Your task to perform on an android device: read, delete, or share a saved page in the chrome app Image 0: 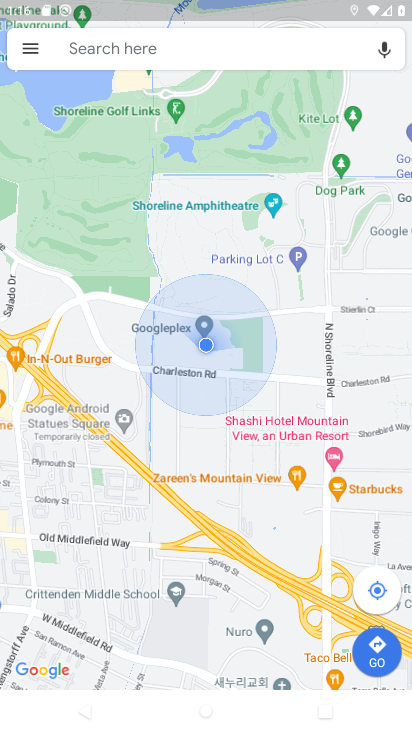
Step 0: press home button
Your task to perform on an android device: read, delete, or share a saved page in the chrome app Image 1: 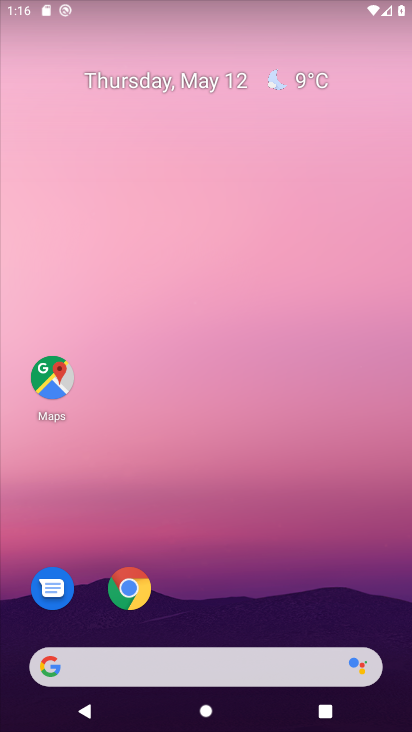
Step 1: drag from (313, 552) to (289, 67)
Your task to perform on an android device: read, delete, or share a saved page in the chrome app Image 2: 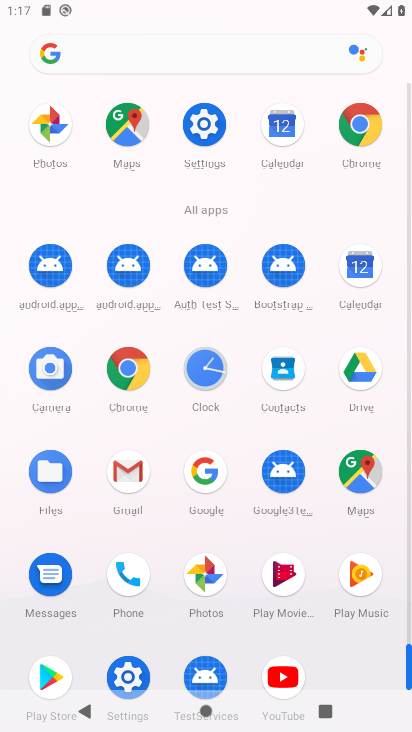
Step 2: click (347, 123)
Your task to perform on an android device: read, delete, or share a saved page in the chrome app Image 3: 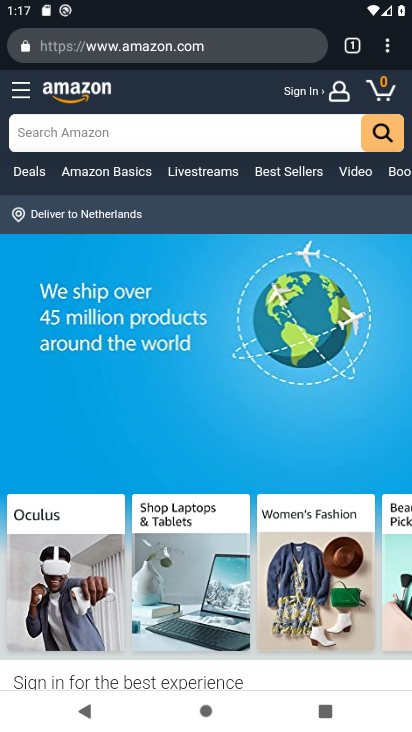
Step 3: task complete